Your task to perform on an android device: Clear the cart on ebay.com. Search for macbook pro 13 inch on ebay.com, select the first entry, add it to the cart, then select checkout. Image 0: 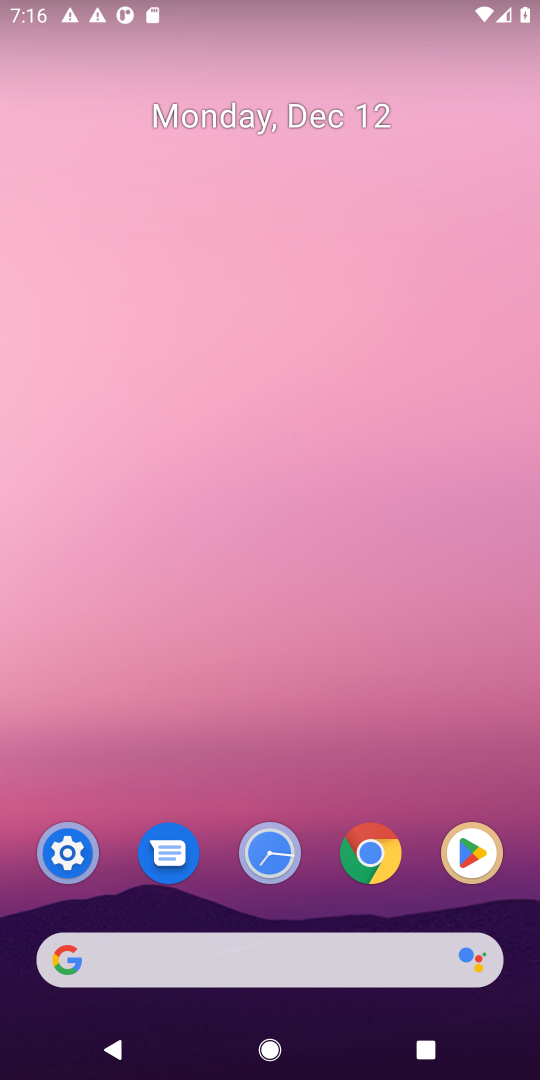
Step 0: click (380, 850)
Your task to perform on an android device: Clear the cart on ebay.com. Search for macbook pro 13 inch on ebay.com, select the first entry, add it to the cart, then select checkout. Image 1: 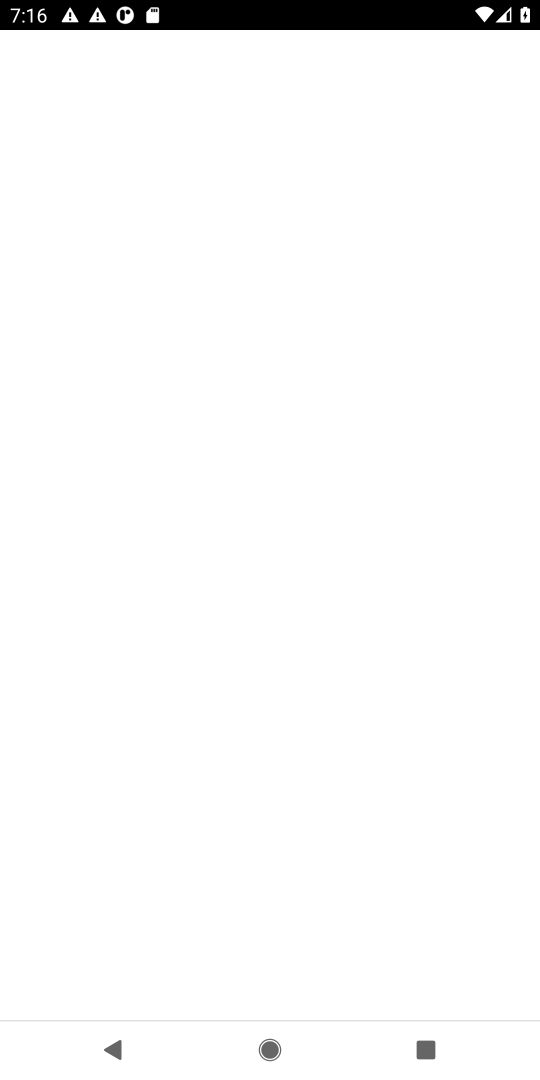
Step 1: press home button
Your task to perform on an android device: Clear the cart on ebay.com. Search for macbook pro 13 inch on ebay.com, select the first entry, add it to the cart, then select checkout. Image 2: 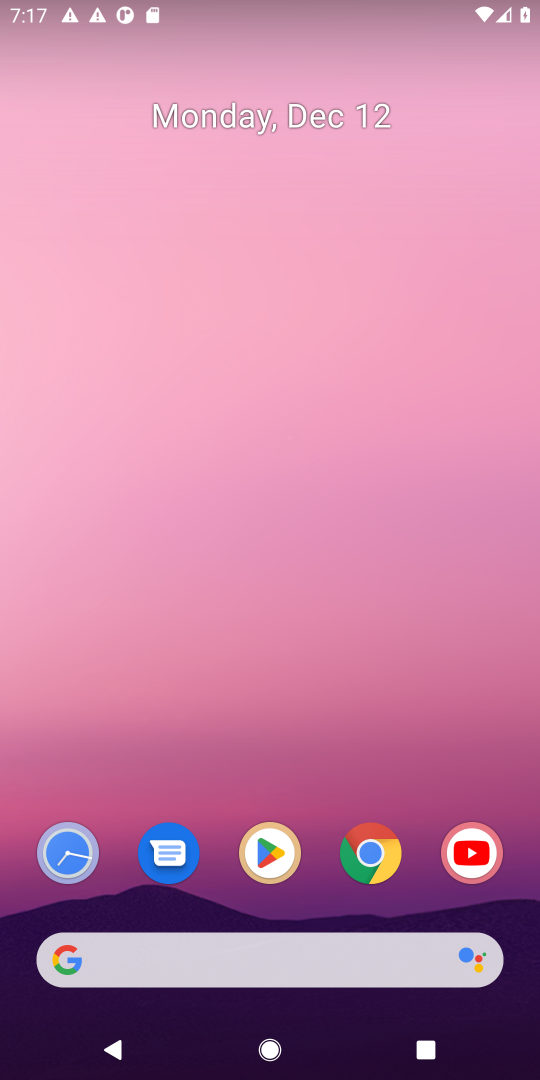
Step 2: click (365, 854)
Your task to perform on an android device: Clear the cart on ebay.com. Search for macbook pro 13 inch on ebay.com, select the first entry, add it to the cart, then select checkout. Image 3: 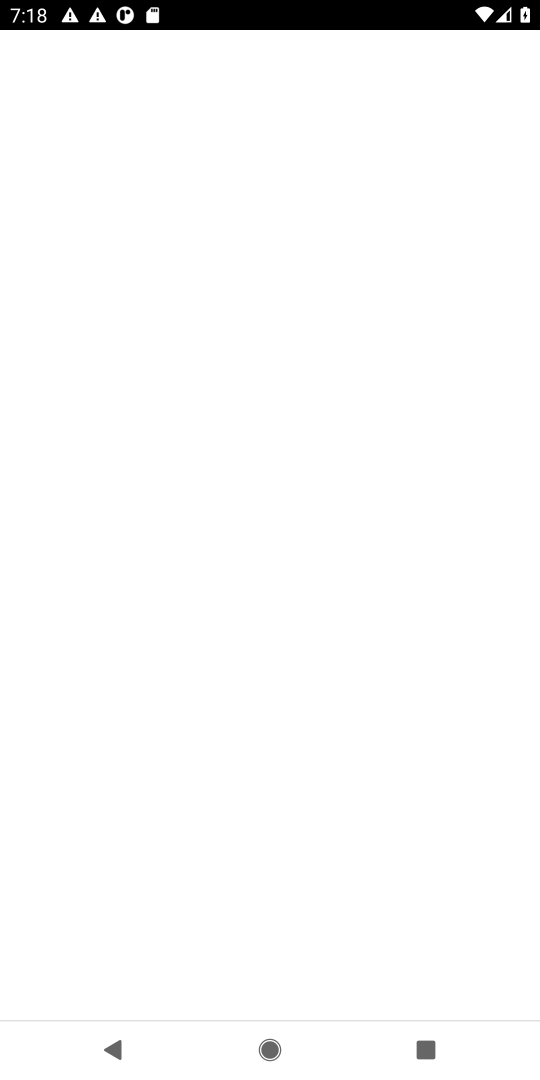
Step 3: task complete